Your task to perform on an android device: turn on airplane mode Image 0: 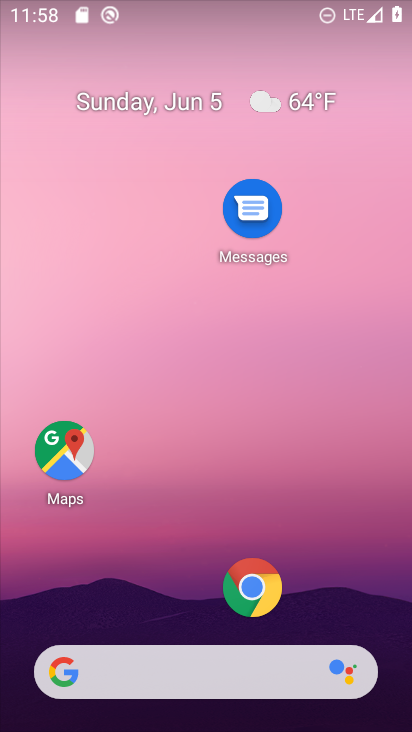
Step 0: drag from (229, 14) to (164, 600)
Your task to perform on an android device: turn on airplane mode Image 1: 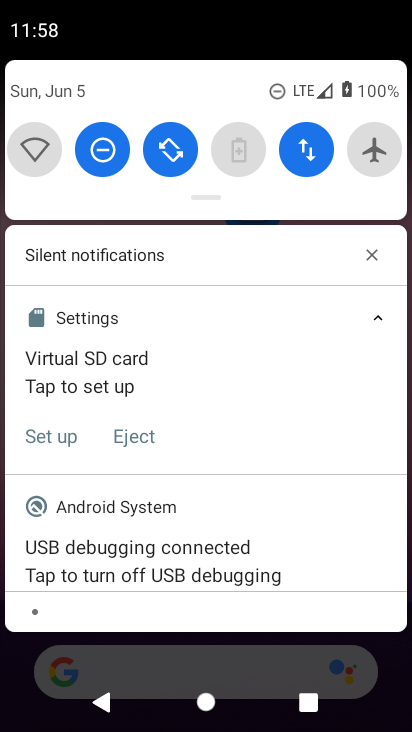
Step 1: click (390, 127)
Your task to perform on an android device: turn on airplane mode Image 2: 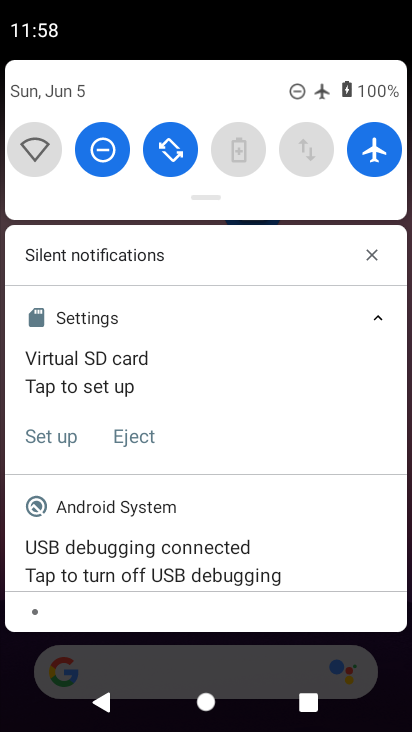
Step 2: task complete